Your task to perform on an android device: What's the weather going to be tomorrow? Image 0: 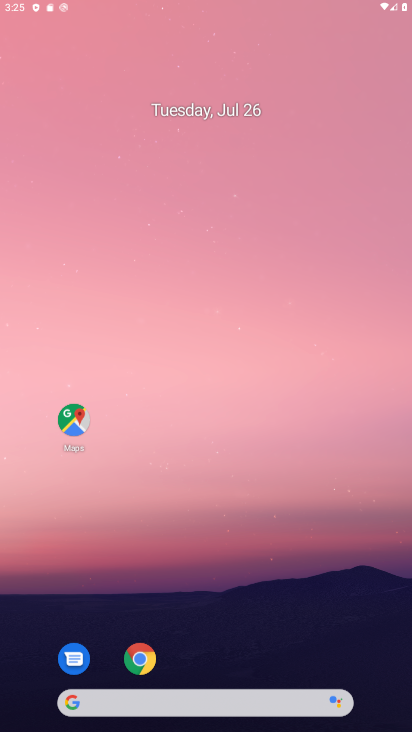
Step 0: press home button
Your task to perform on an android device: What's the weather going to be tomorrow? Image 1: 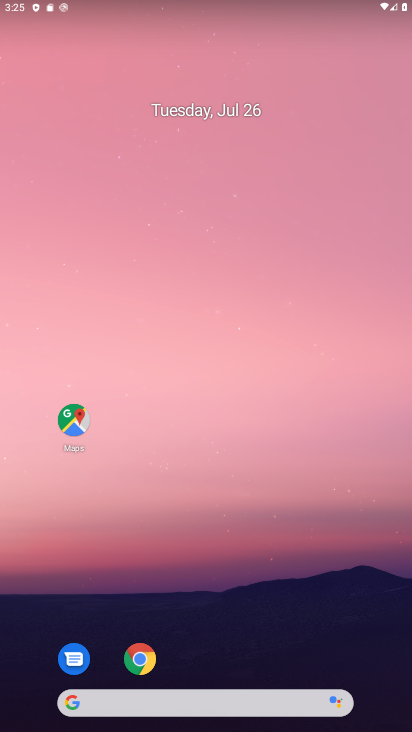
Step 1: click (231, 702)
Your task to perform on an android device: What's the weather going to be tomorrow? Image 2: 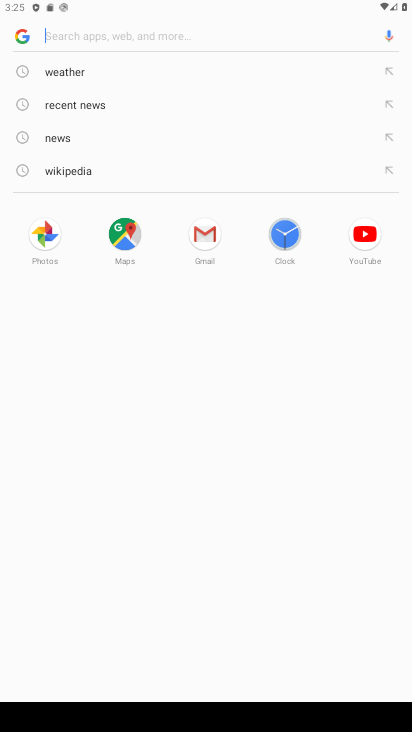
Step 2: type "what's the weather going to be tomorrow"
Your task to perform on an android device: What's the weather going to be tomorrow? Image 3: 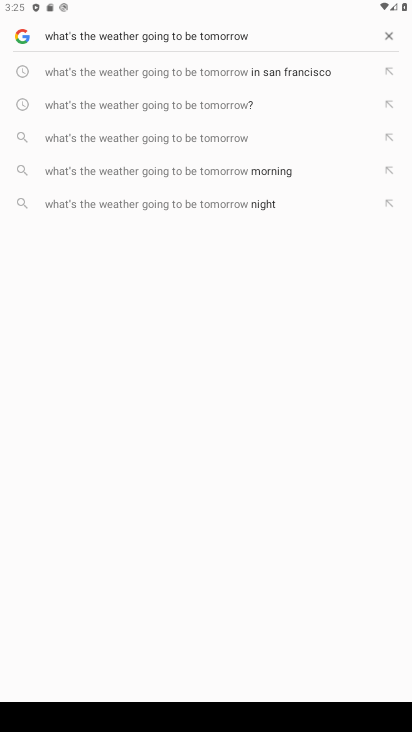
Step 3: click (192, 108)
Your task to perform on an android device: What's the weather going to be tomorrow? Image 4: 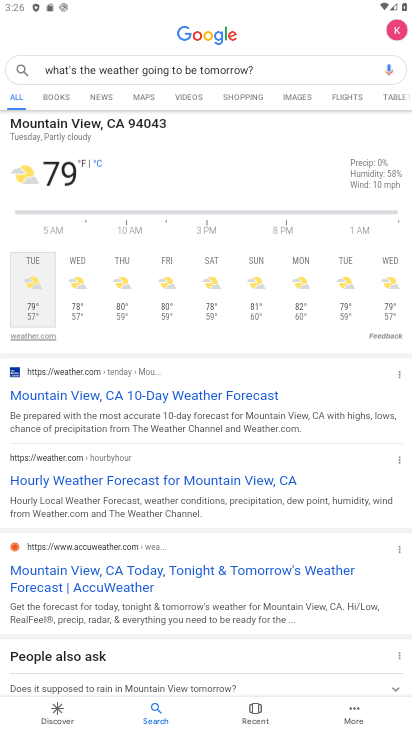
Step 4: task complete